Your task to perform on an android device: toggle wifi Image 0: 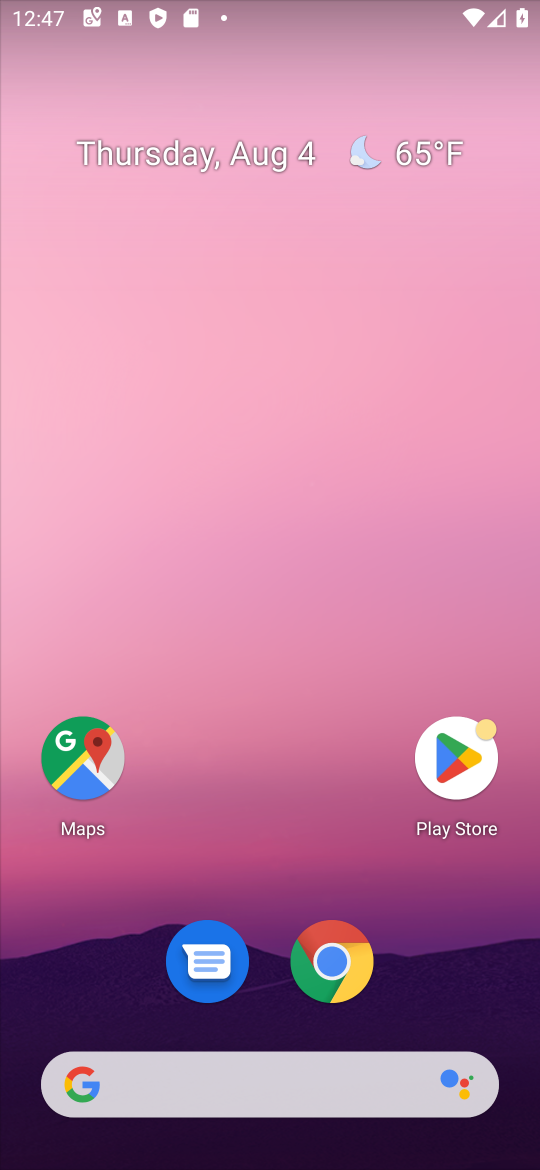
Step 0: drag from (259, 685) to (304, 0)
Your task to perform on an android device: toggle wifi Image 1: 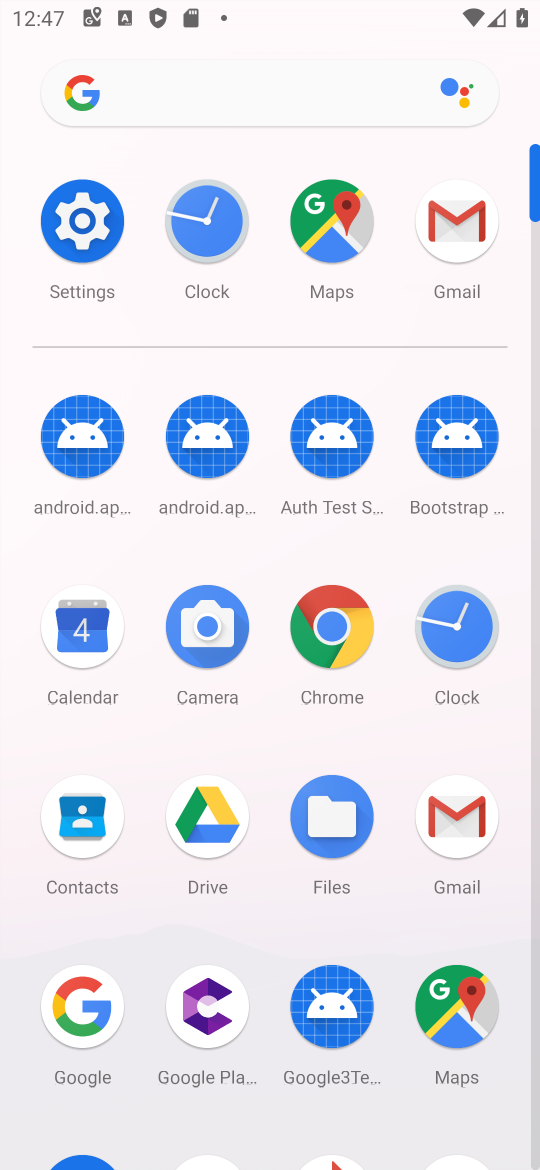
Step 1: click (85, 210)
Your task to perform on an android device: toggle wifi Image 2: 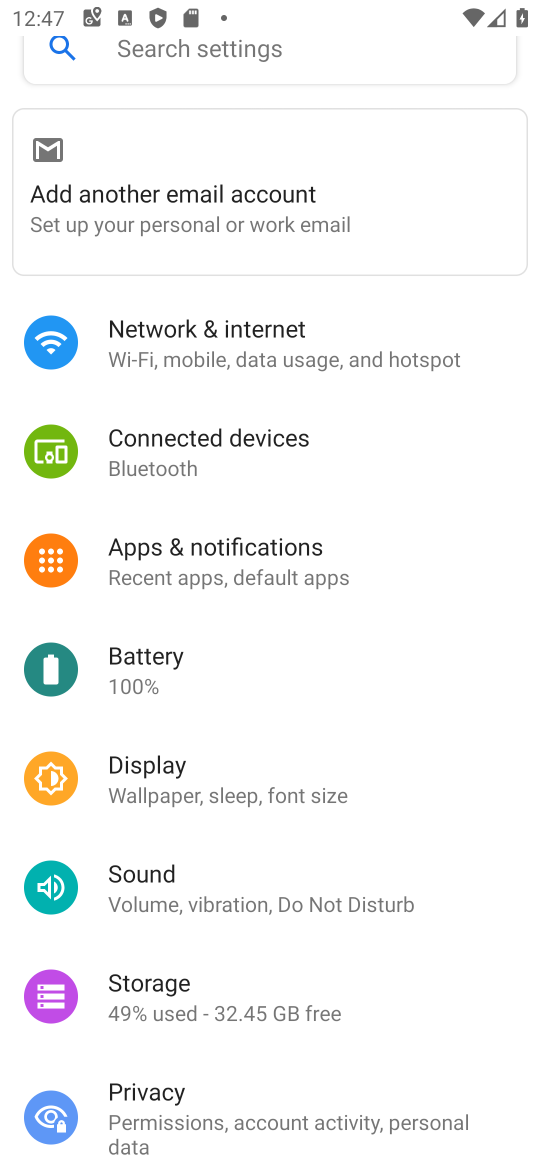
Step 2: click (203, 336)
Your task to perform on an android device: toggle wifi Image 3: 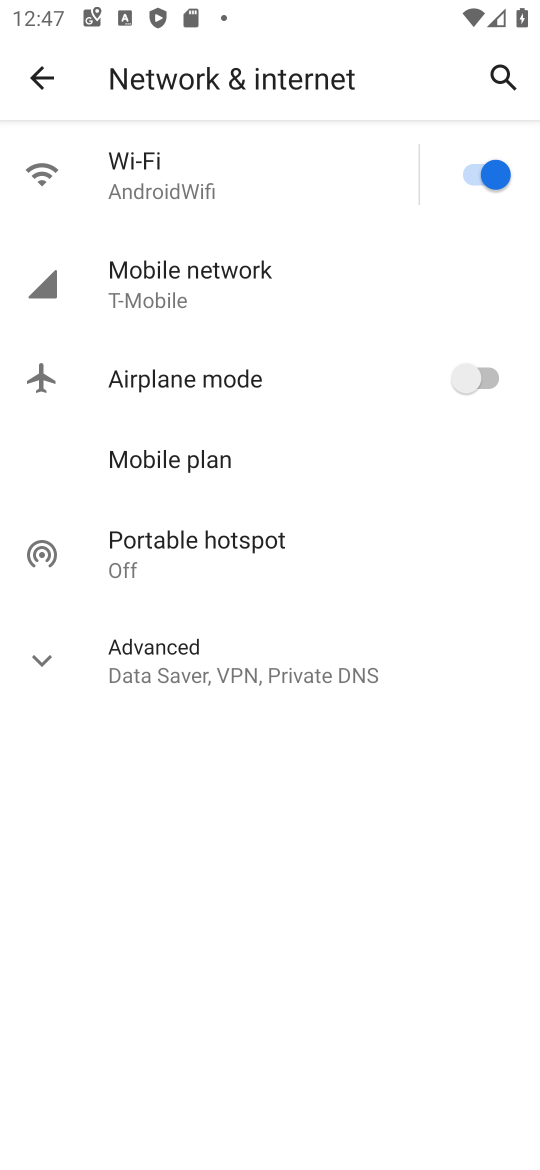
Step 3: click (469, 173)
Your task to perform on an android device: toggle wifi Image 4: 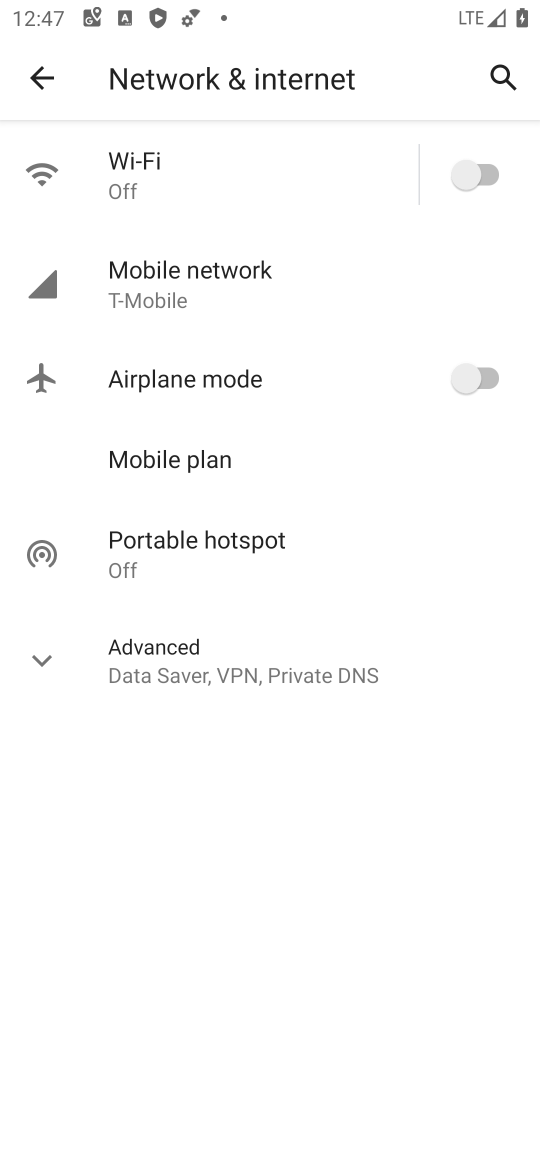
Step 4: task complete